Your task to perform on an android device: Show me recent news Image 0: 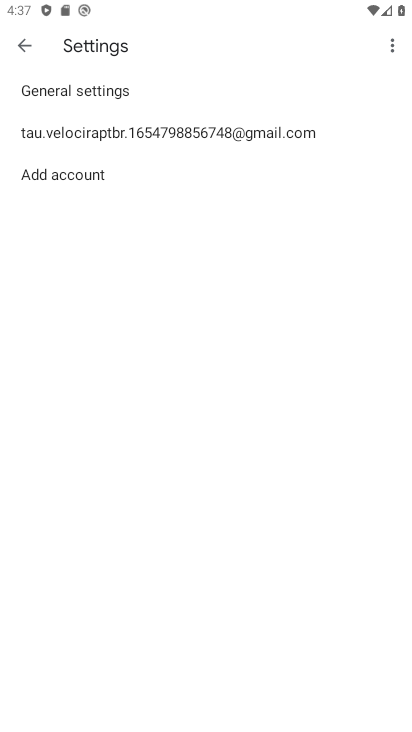
Step 0: press home button
Your task to perform on an android device: Show me recent news Image 1: 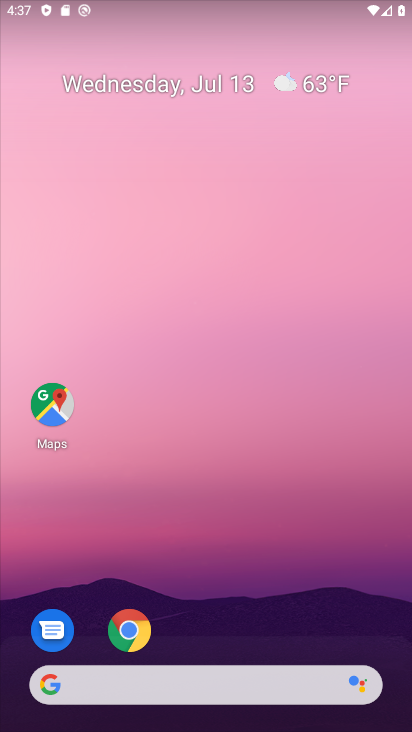
Step 1: click (168, 690)
Your task to perform on an android device: Show me recent news Image 2: 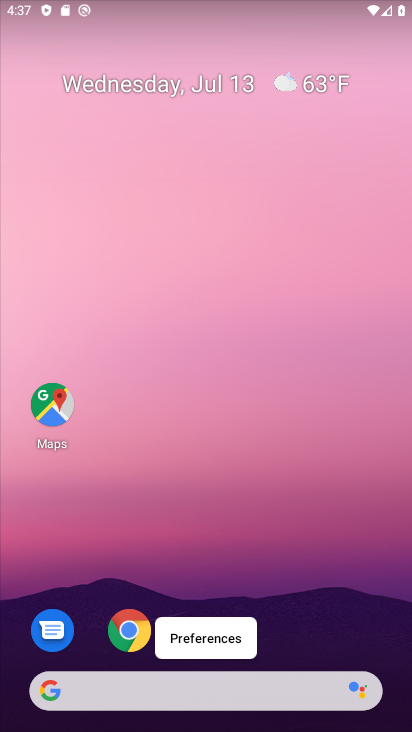
Step 2: click (49, 677)
Your task to perform on an android device: Show me recent news Image 3: 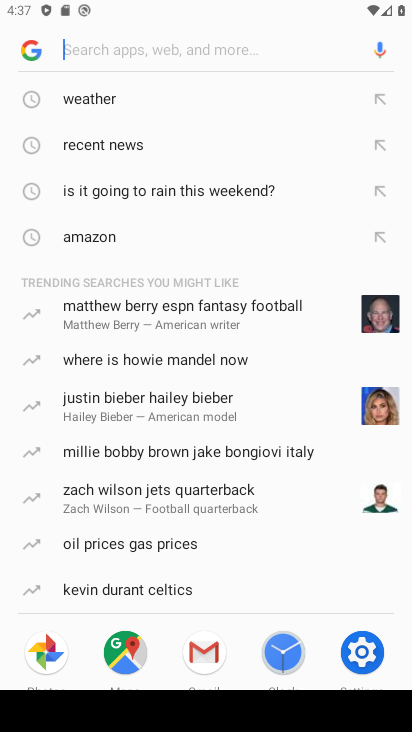
Step 3: type "recent news"
Your task to perform on an android device: Show me recent news Image 4: 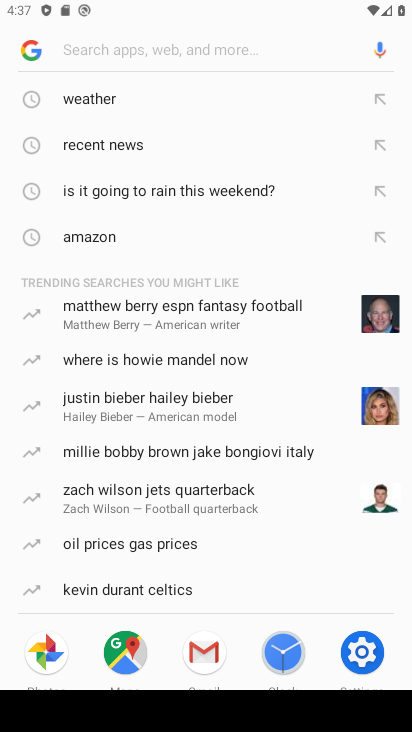
Step 4: click (85, 43)
Your task to perform on an android device: Show me recent news Image 5: 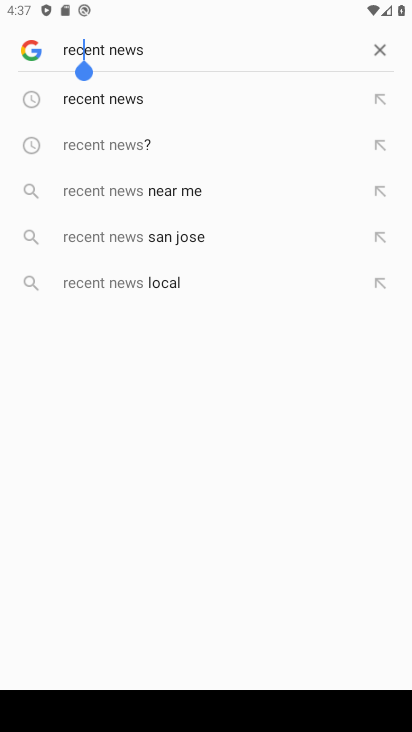
Step 5: click (94, 103)
Your task to perform on an android device: Show me recent news Image 6: 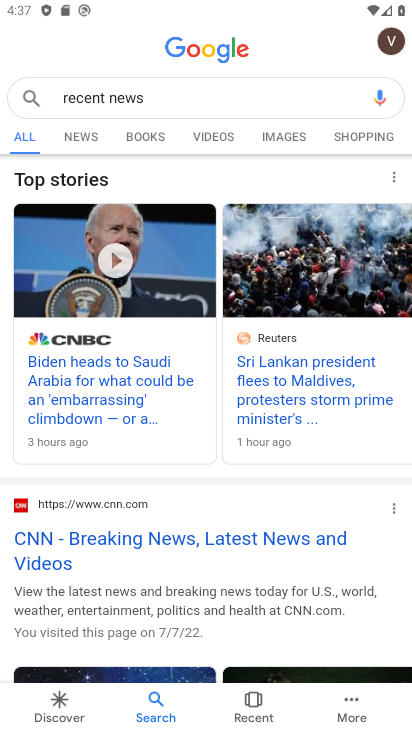
Step 6: task complete